Your task to perform on an android device: turn off wifi Image 0: 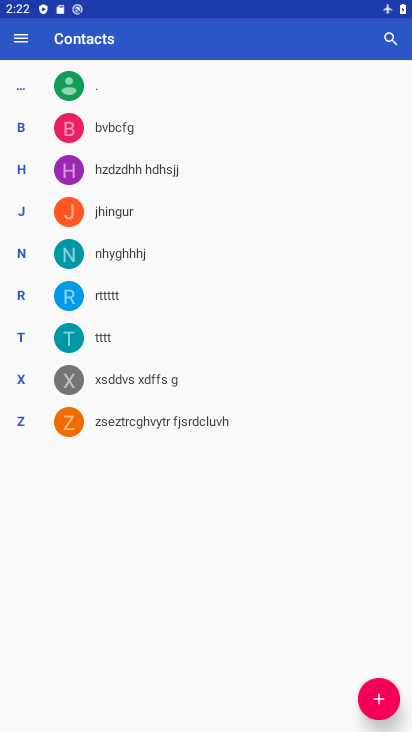
Step 0: press home button
Your task to perform on an android device: turn off wifi Image 1: 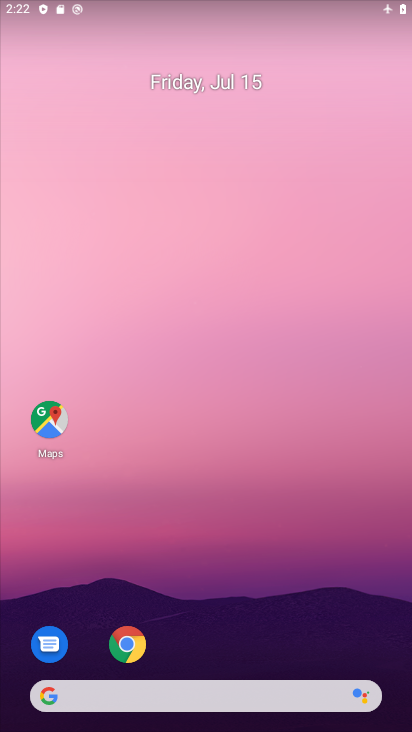
Step 1: drag from (264, 691) to (305, 0)
Your task to perform on an android device: turn off wifi Image 2: 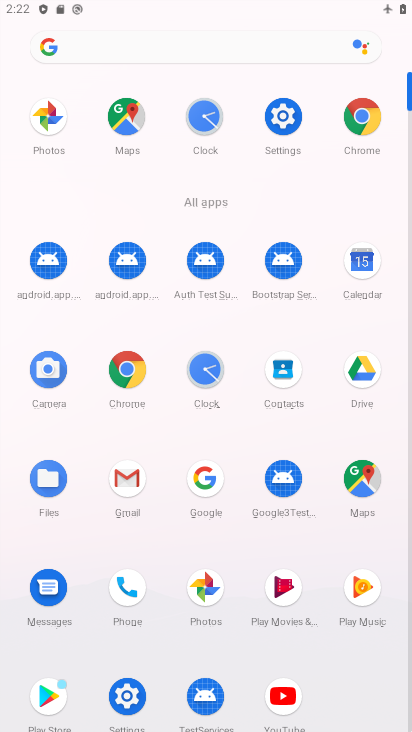
Step 2: click (284, 118)
Your task to perform on an android device: turn off wifi Image 3: 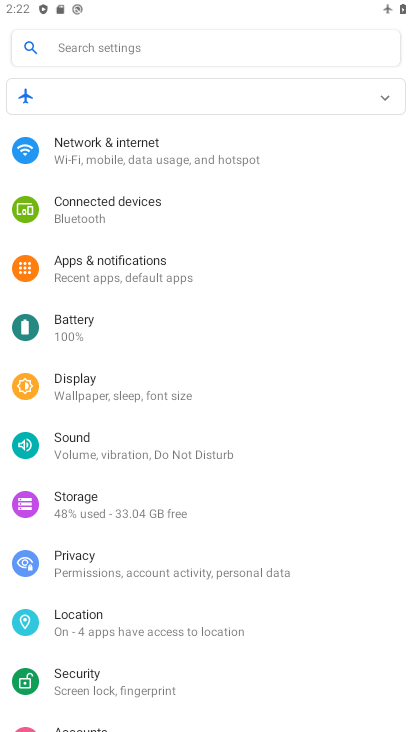
Step 3: click (146, 148)
Your task to perform on an android device: turn off wifi Image 4: 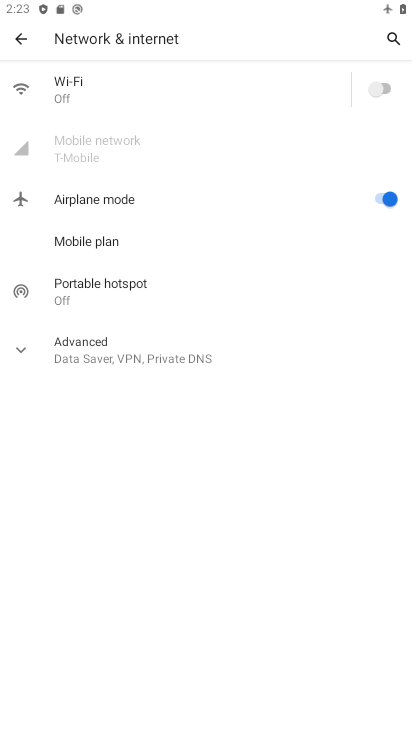
Step 4: task complete